Your task to perform on an android device: toggle data saver in the chrome app Image 0: 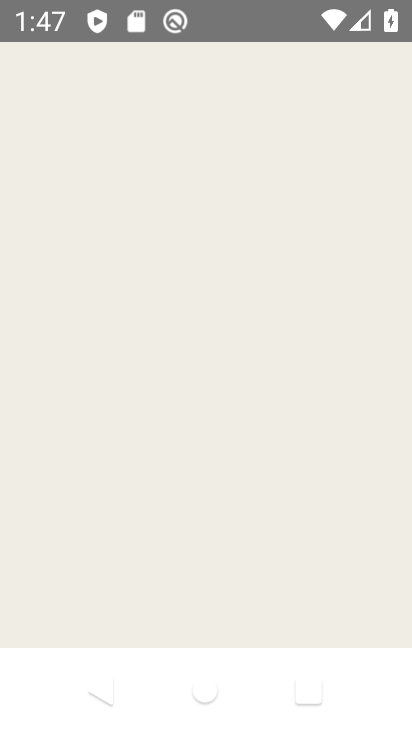
Step 0: press home button
Your task to perform on an android device: toggle data saver in the chrome app Image 1: 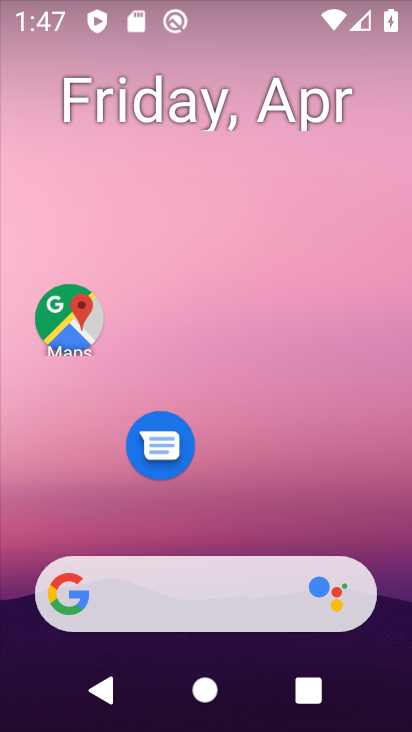
Step 1: drag from (207, 526) to (335, 127)
Your task to perform on an android device: toggle data saver in the chrome app Image 2: 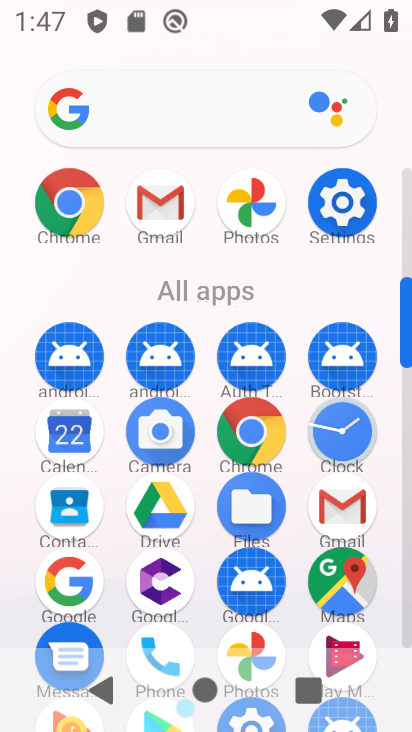
Step 2: click (239, 418)
Your task to perform on an android device: toggle data saver in the chrome app Image 3: 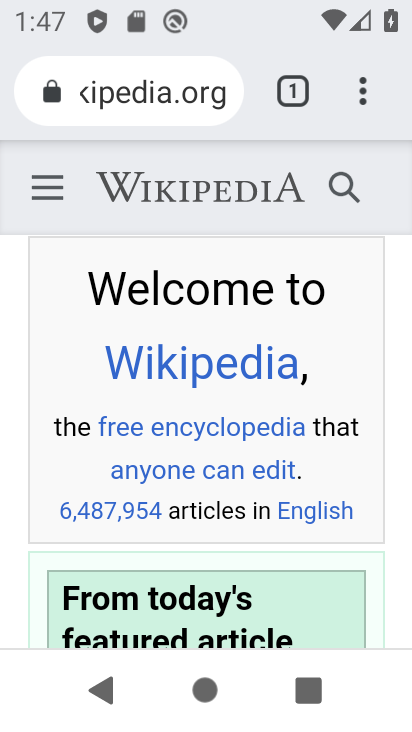
Step 3: click (364, 88)
Your task to perform on an android device: toggle data saver in the chrome app Image 4: 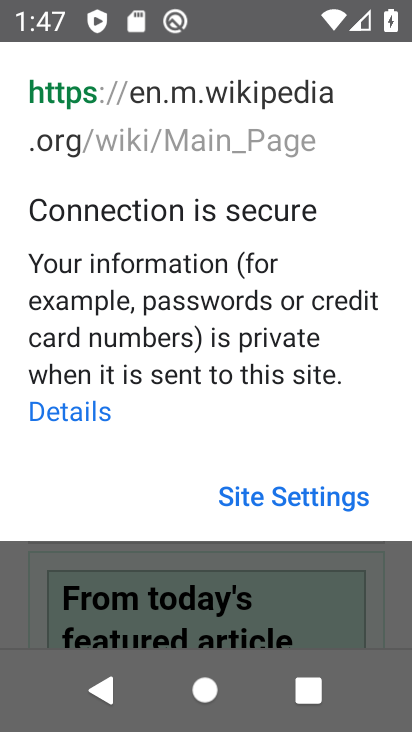
Step 4: click (41, 539)
Your task to perform on an android device: toggle data saver in the chrome app Image 5: 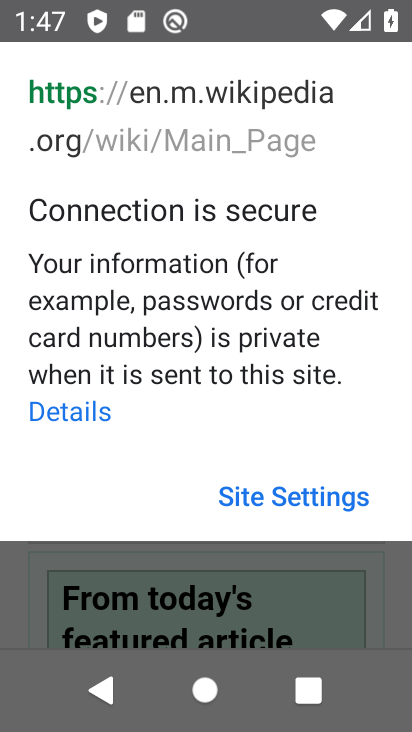
Step 5: click (310, 620)
Your task to perform on an android device: toggle data saver in the chrome app Image 6: 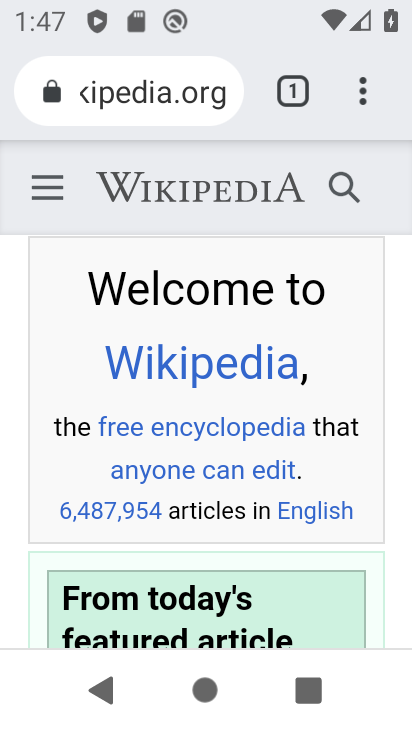
Step 6: click (362, 94)
Your task to perform on an android device: toggle data saver in the chrome app Image 7: 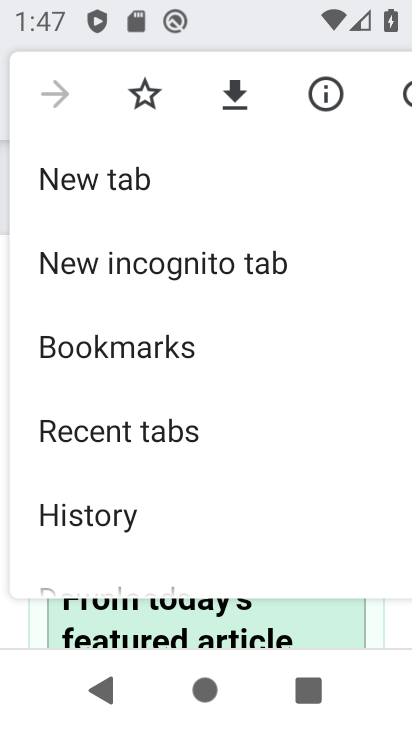
Step 7: drag from (168, 482) to (189, 286)
Your task to perform on an android device: toggle data saver in the chrome app Image 8: 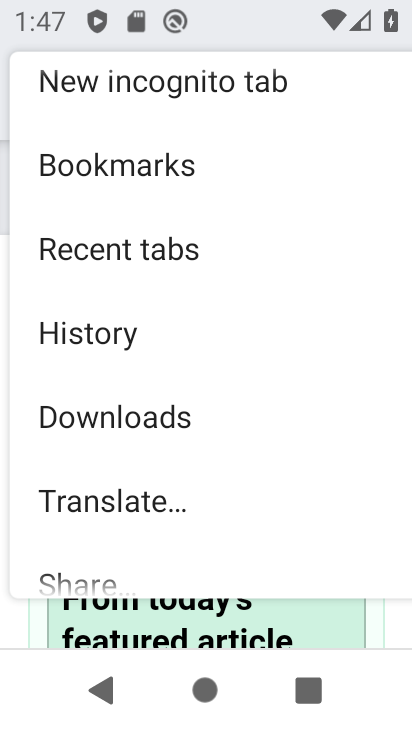
Step 8: drag from (179, 491) to (199, 305)
Your task to perform on an android device: toggle data saver in the chrome app Image 9: 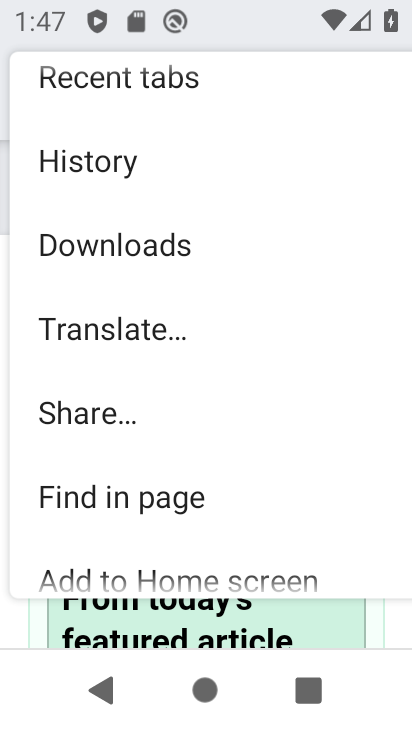
Step 9: drag from (253, 497) to (285, 271)
Your task to perform on an android device: toggle data saver in the chrome app Image 10: 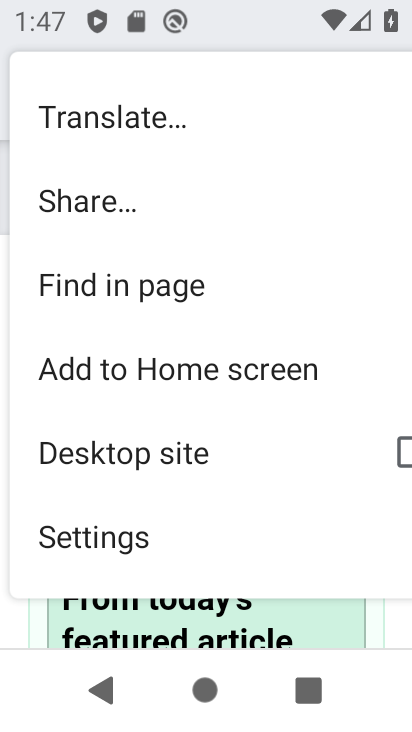
Step 10: click (217, 530)
Your task to perform on an android device: toggle data saver in the chrome app Image 11: 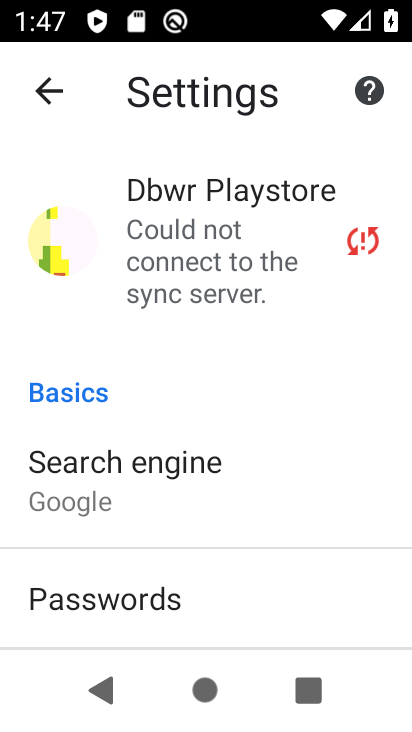
Step 11: drag from (229, 565) to (284, 299)
Your task to perform on an android device: toggle data saver in the chrome app Image 12: 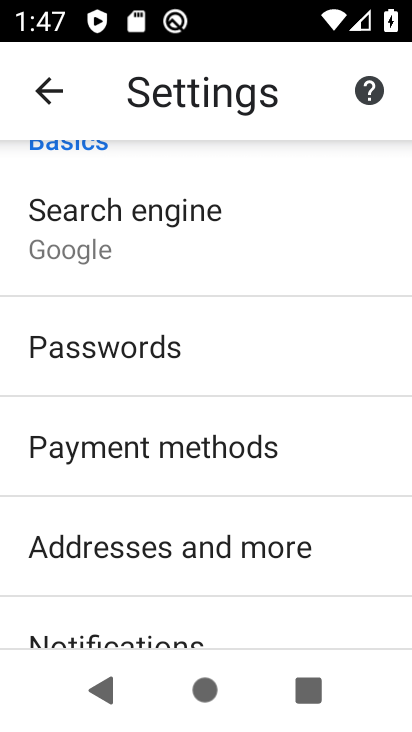
Step 12: drag from (264, 533) to (299, 302)
Your task to perform on an android device: toggle data saver in the chrome app Image 13: 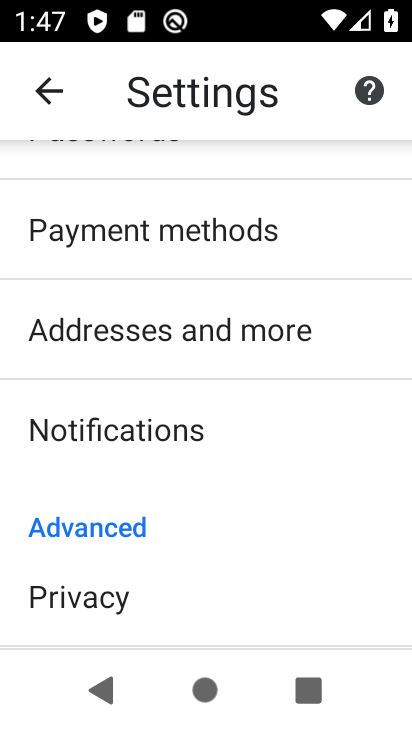
Step 13: drag from (250, 542) to (283, 410)
Your task to perform on an android device: toggle data saver in the chrome app Image 14: 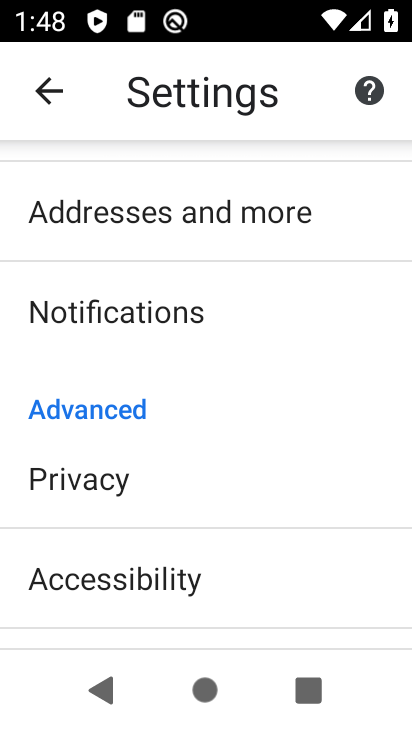
Step 14: drag from (270, 565) to (304, 432)
Your task to perform on an android device: toggle data saver in the chrome app Image 15: 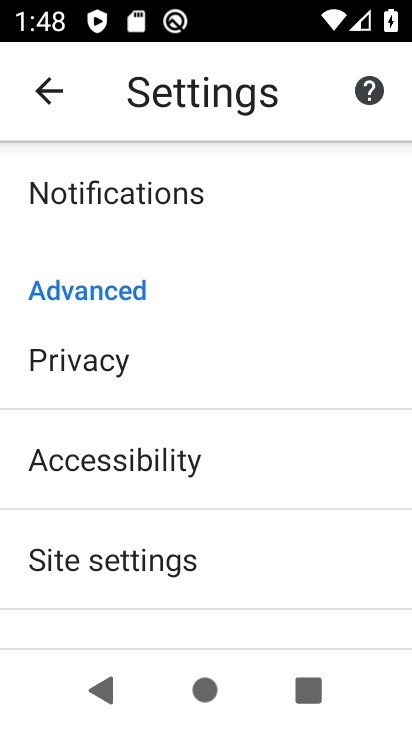
Step 15: drag from (300, 564) to (333, 405)
Your task to perform on an android device: toggle data saver in the chrome app Image 16: 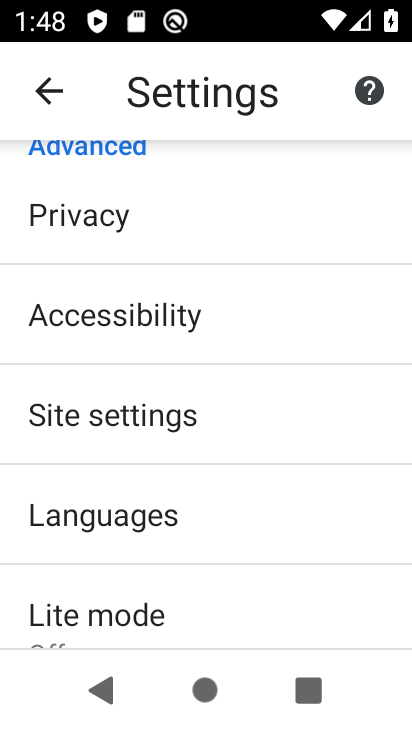
Step 16: click (236, 620)
Your task to perform on an android device: toggle data saver in the chrome app Image 17: 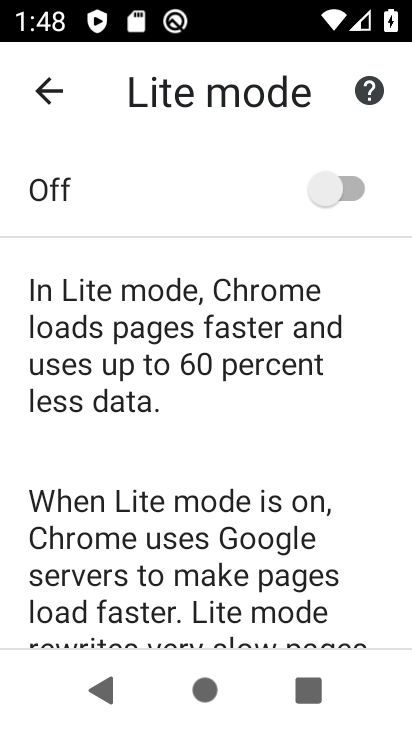
Step 17: click (345, 190)
Your task to perform on an android device: toggle data saver in the chrome app Image 18: 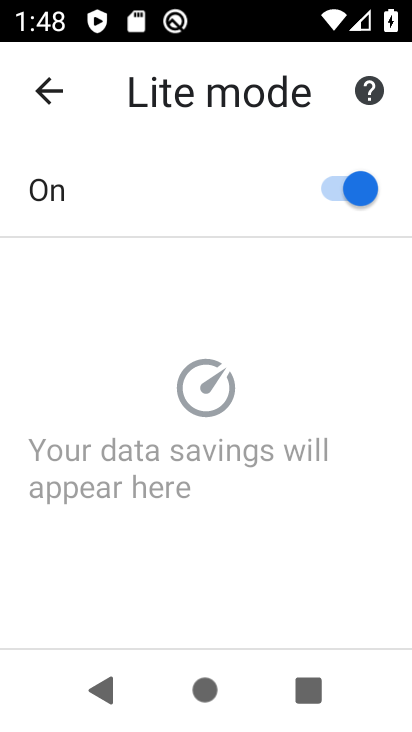
Step 18: task complete